Your task to perform on an android device: Search for seafood restaurants on Google Maps Image 0: 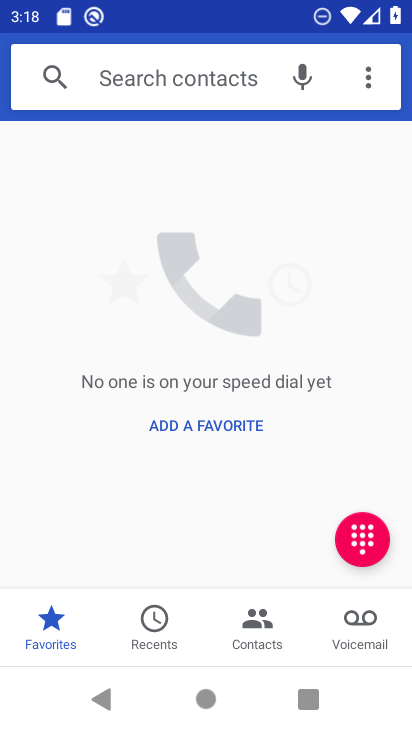
Step 0: press home button
Your task to perform on an android device: Search for seafood restaurants on Google Maps Image 1: 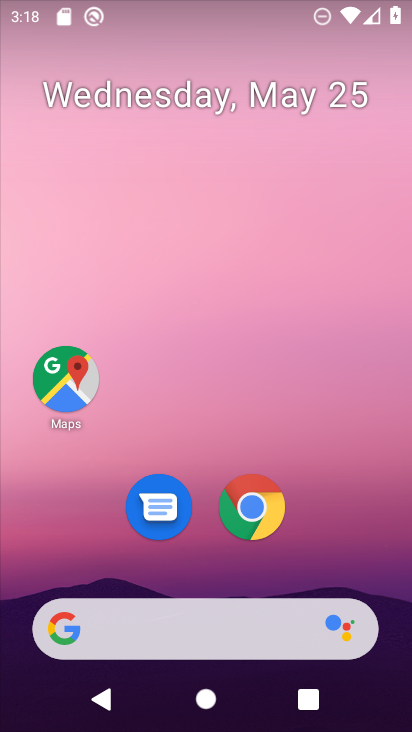
Step 1: drag from (202, 518) to (256, 330)
Your task to perform on an android device: Search for seafood restaurants on Google Maps Image 2: 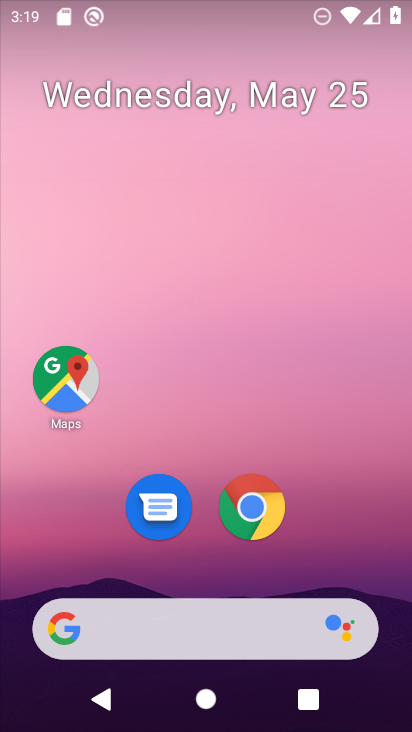
Step 2: drag from (186, 693) to (174, 309)
Your task to perform on an android device: Search for seafood restaurants on Google Maps Image 3: 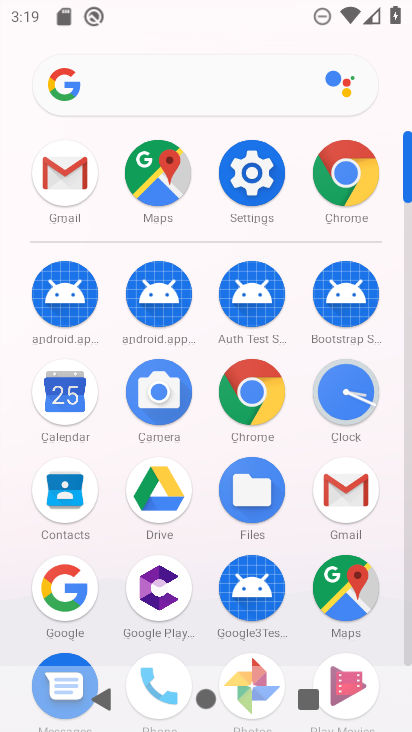
Step 3: click (343, 597)
Your task to perform on an android device: Search for seafood restaurants on Google Maps Image 4: 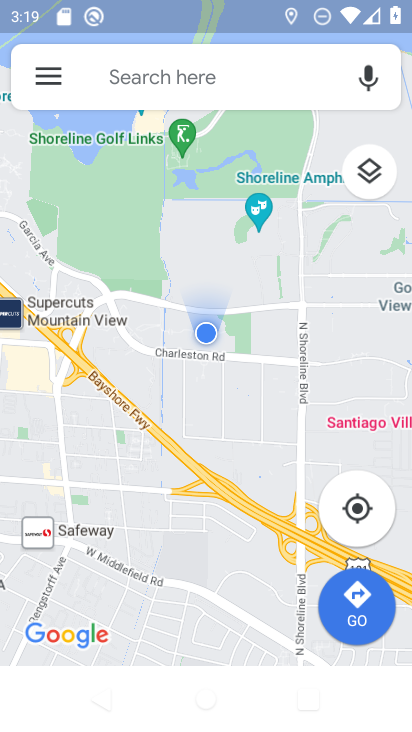
Step 4: click (142, 82)
Your task to perform on an android device: Search for seafood restaurants on Google Maps Image 5: 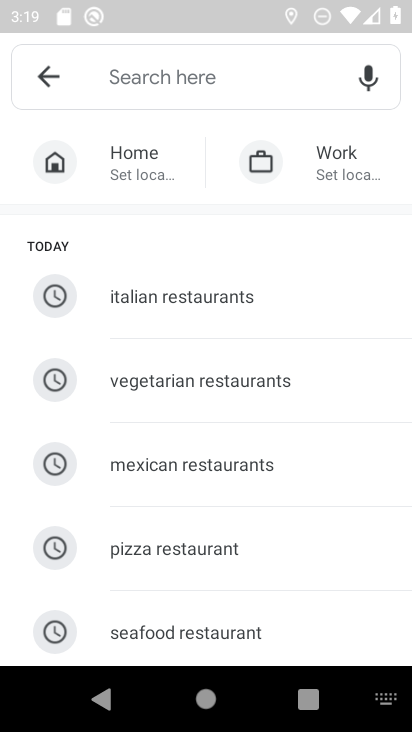
Step 5: click (152, 641)
Your task to perform on an android device: Search for seafood restaurants on Google Maps Image 6: 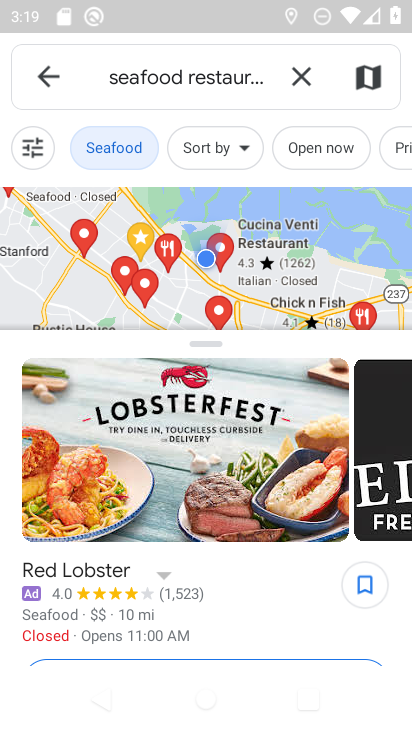
Step 6: task complete